Your task to perform on an android device: delete browsing data in the chrome app Image 0: 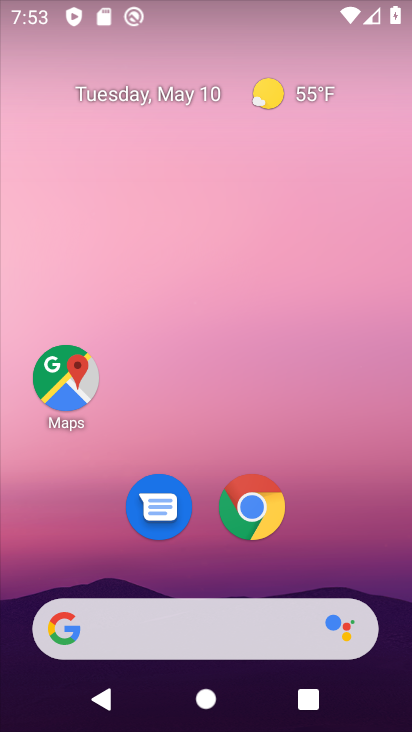
Step 0: click (253, 526)
Your task to perform on an android device: delete browsing data in the chrome app Image 1: 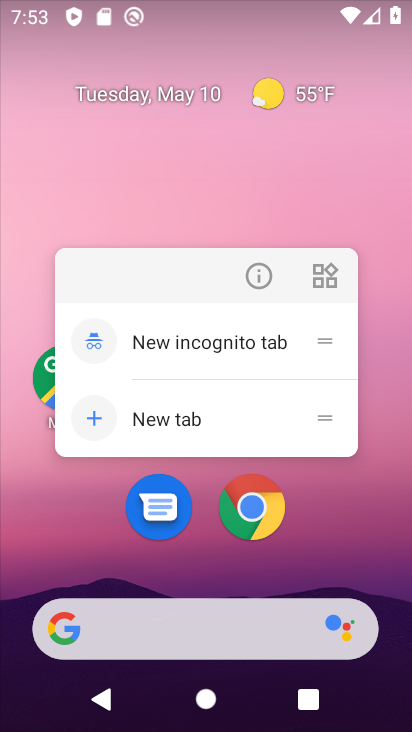
Step 1: click (254, 510)
Your task to perform on an android device: delete browsing data in the chrome app Image 2: 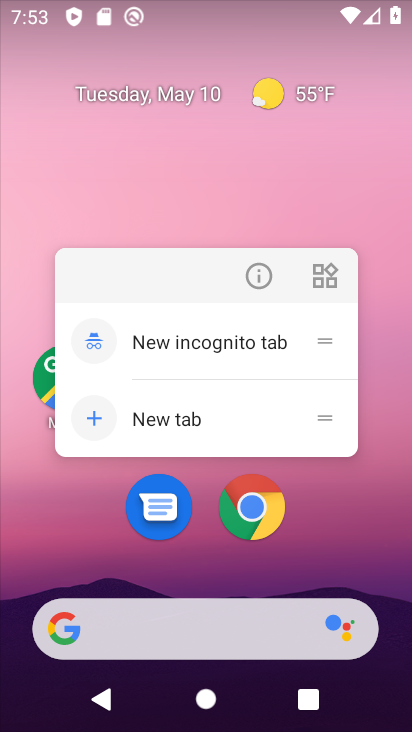
Step 2: click (271, 506)
Your task to perform on an android device: delete browsing data in the chrome app Image 3: 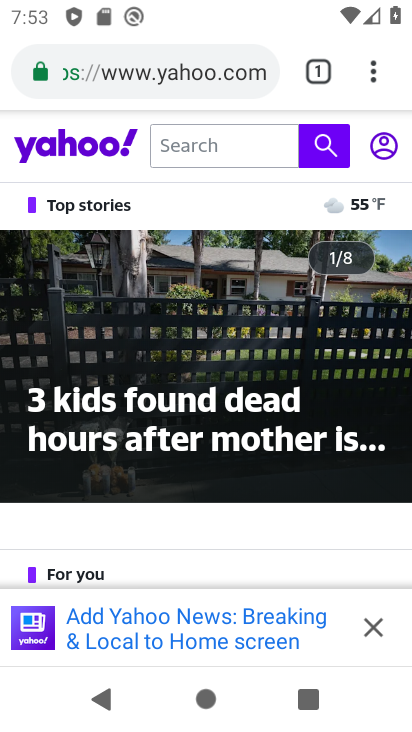
Step 3: drag from (386, 79) to (199, 498)
Your task to perform on an android device: delete browsing data in the chrome app Image 4: 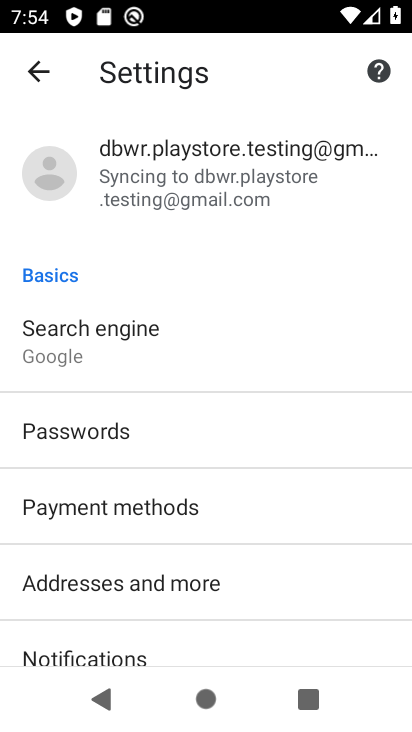
Step 4: drag from (188, 654) to (288, 339)
Your task to perform on an android device: delete browsing data in the chrome app Image 5: 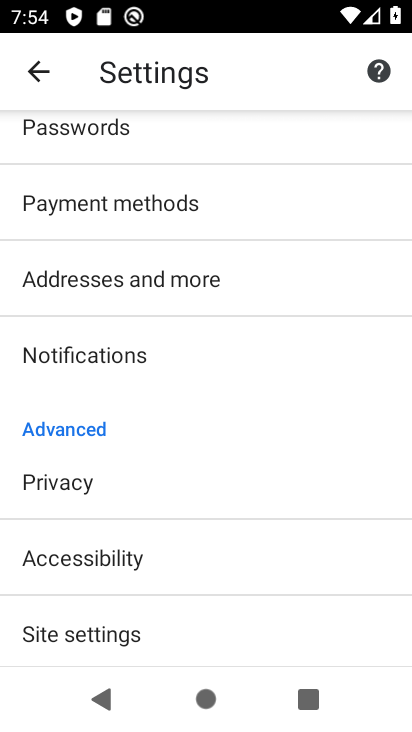
Step 5: click (86, 516)
Your task to perform on an android device: delete browsing data in the chrome app Image 6: 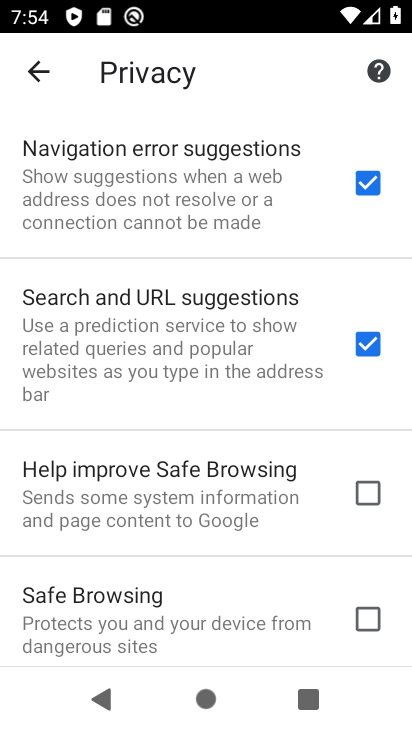
Step 6: drag from (195, 585) to (280, 333)
Your task to perform on an android device: delete browsing data in the chrome app Image 7: 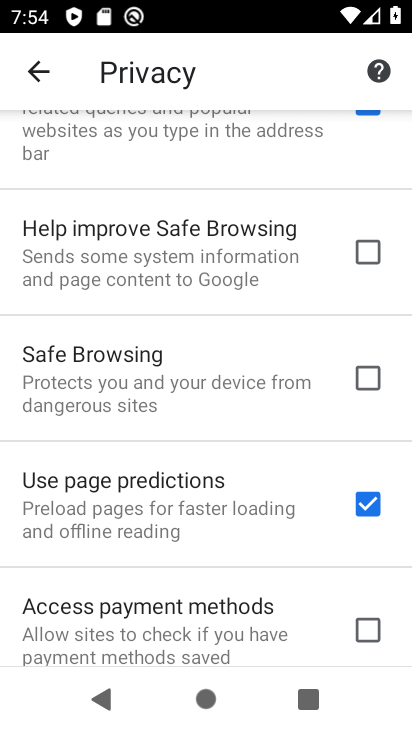
Step 7: drag from (146, 635) to (305, 219)
Your task to perform on an android device: delete browsing data in the chrome app Image 8: 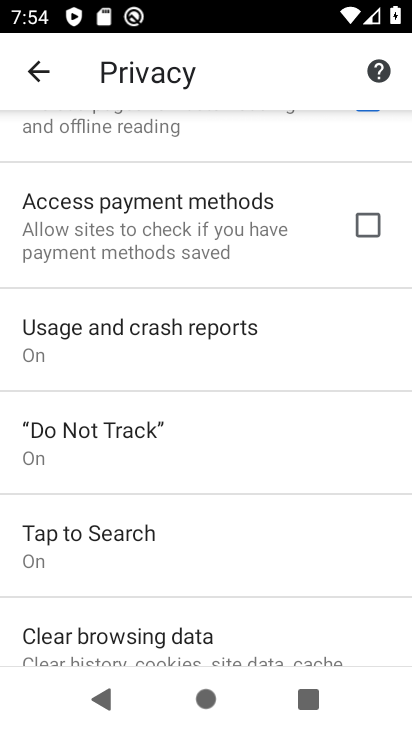
Step 8: drag from (153, 625) to (251, 267)
Your task to perform on an android device: delete browsing data in the chrome app Image 9: 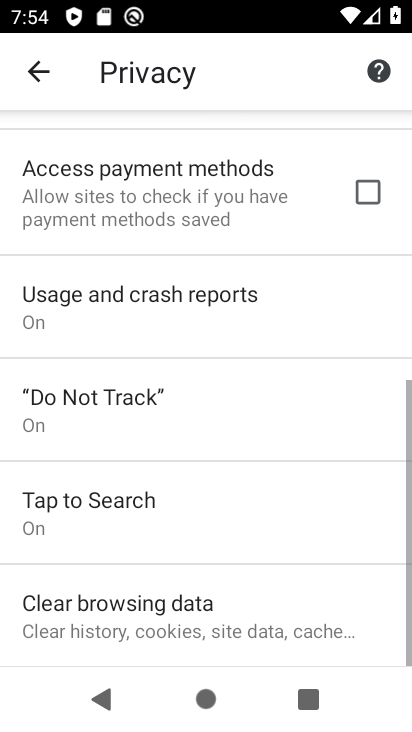
Step 9: click (169, 617)
Your task to perform on an android device: delete browsing data in the chrome app Image 10: 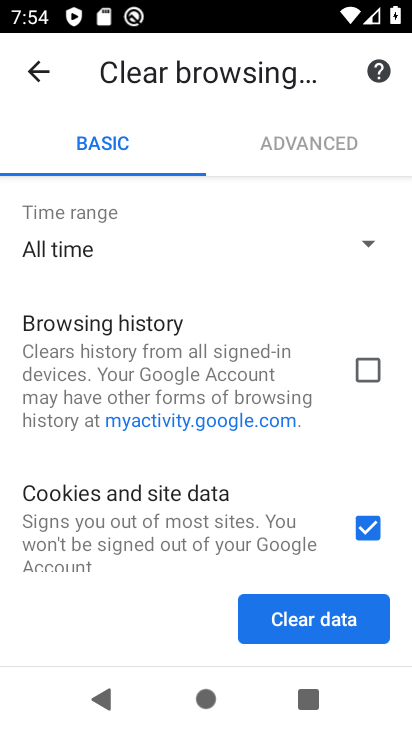
Step 10: click (367, 383)
Your task to perform on an android device: delete browsing data in the chrome app Image 11: 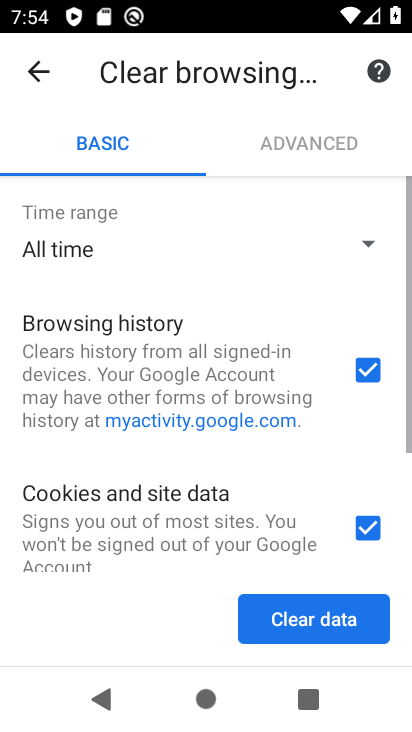
Step 11: click (369, 535)
Your task to perform on an android device: delete browsing data in the chrome app Image 12: 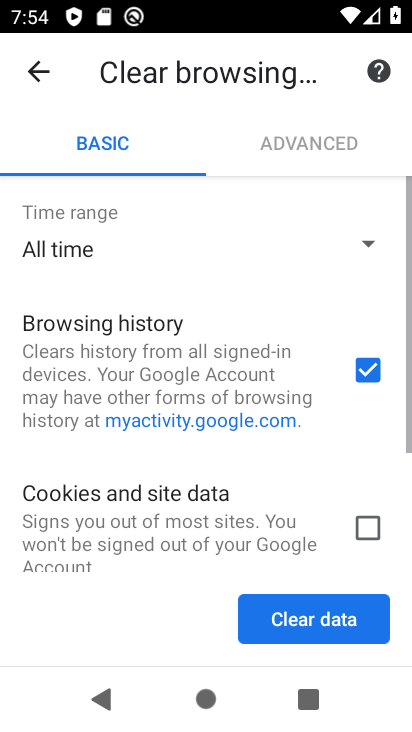
Step 12: drag from (199, 538) to (265, 252)
Your task to perform on an android device: delete browsing data in the chrome app Image 13: 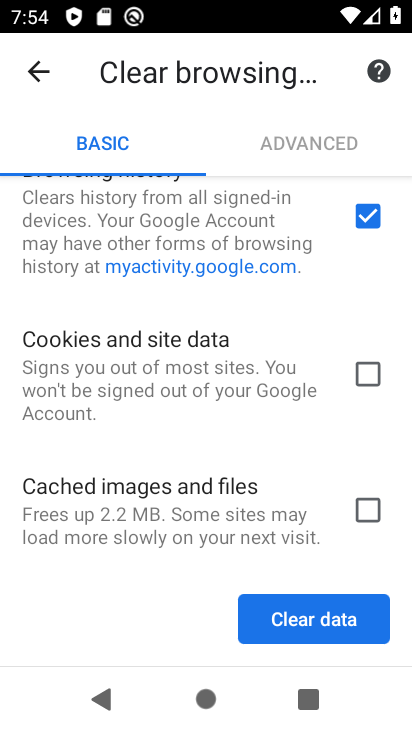
Step 13: click (316, 603)
Your task to perform on an android device: delete browsing data in the chrome app Image 14: 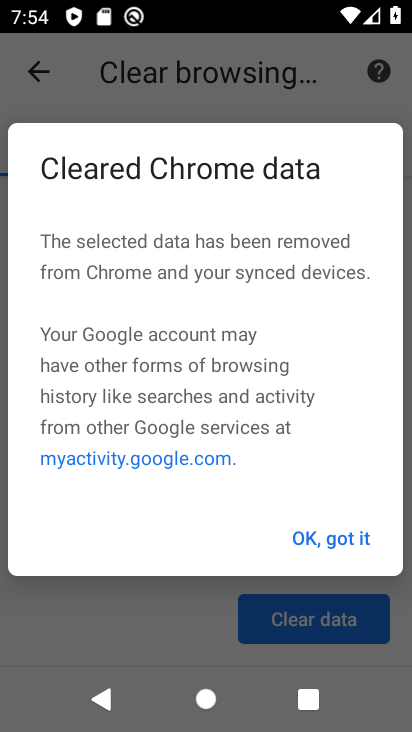
Step 14: click (360, 541)
Your task to perform on an android device: delete browsing data in the chrome app Image 15: 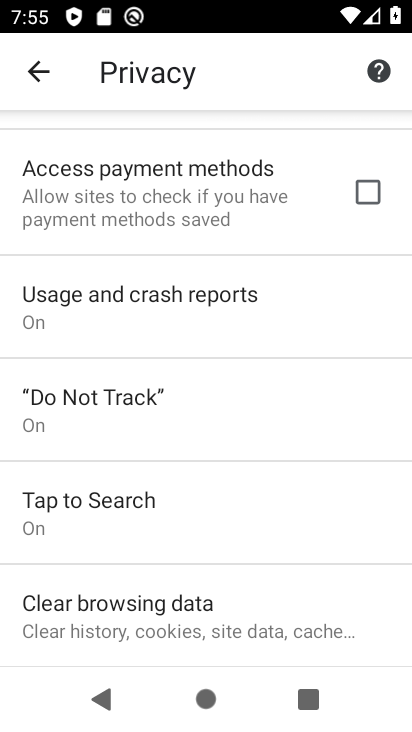
Step 15: task complete